Your task to perform on an android device: turn pop-ups on in chrome Image 0: 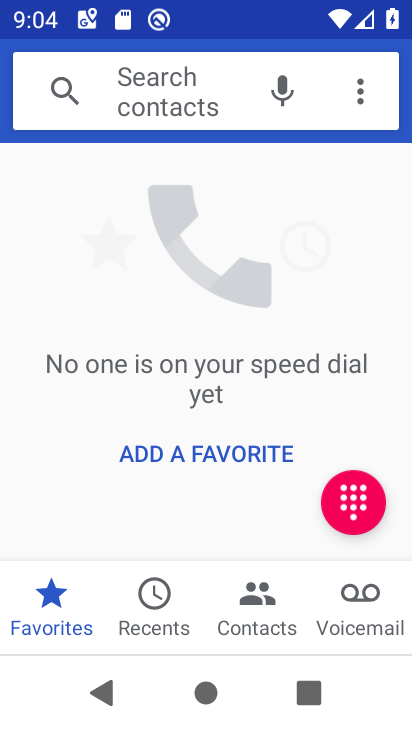
Step 0: press home button
Your task to perform on an android device: turn pop-ups on in chrome Image 1: 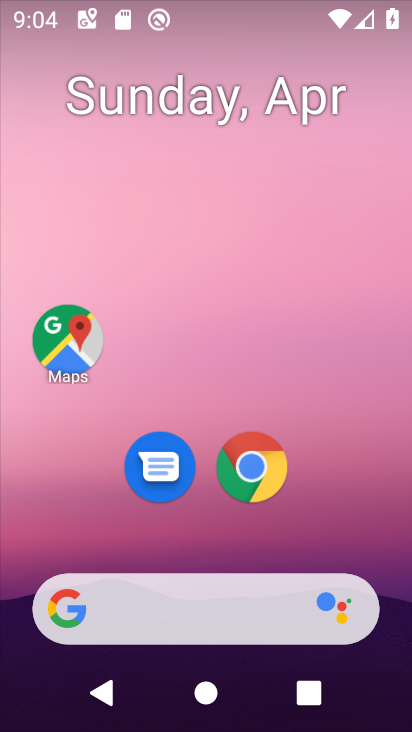
Step 1: click (238, 455)
Your task to perform on an android device: turn pop-ups on in chrome Image 2: 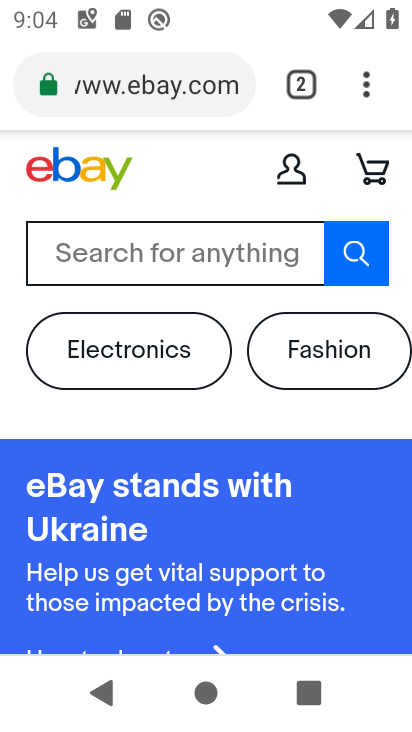
Step 2: click (370, 82)
Your task to perform on an android device: turn pop-ups on in chrome Image 3: 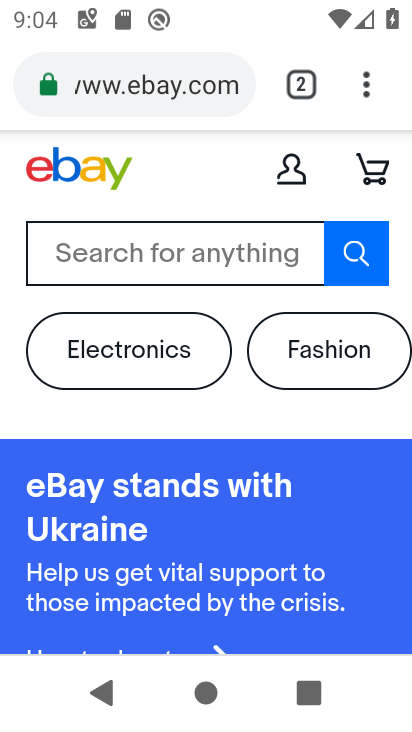
Step 3: click (372, 89)
Your task to perform on an android device: turn pop-ups on in chrome Image 4: 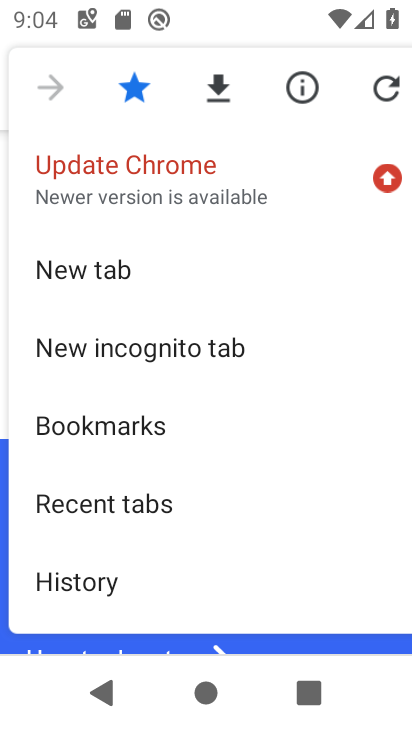
Step 4: drag from (170, 511) to (216, 284)
Your task to perform on an android device: turn pop-ups on in chrome Image 5: 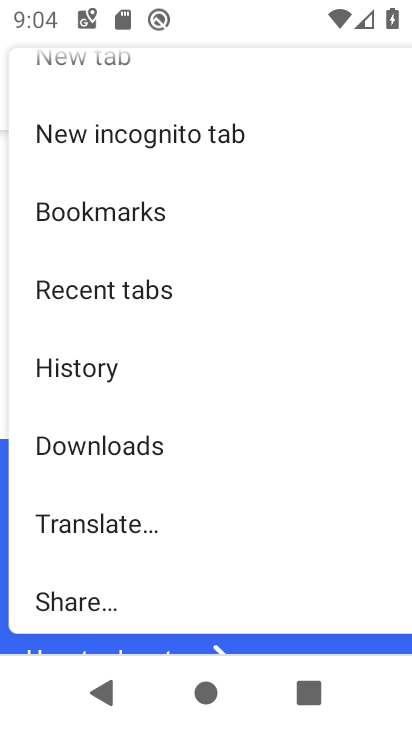
Step 5: drag from (179, 511) to (215, 362)
Your task to perform on an android device: turn pop-ups on in chrome Image 6: 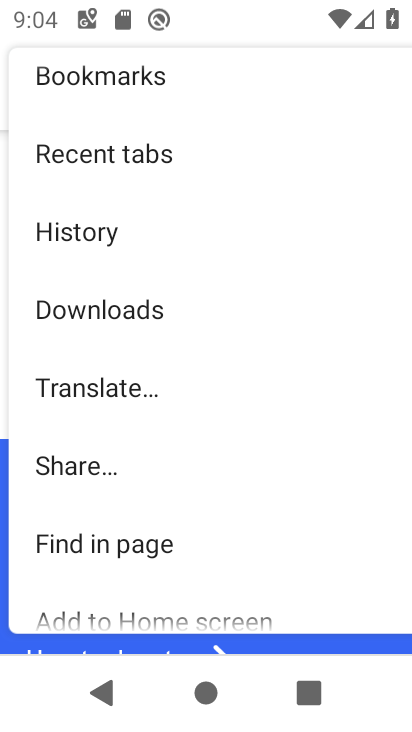
Step 6: drag from (173, 517) to (223, 313)
Your task to perform on an android device: turn pop-ups on in chrome Image 7: 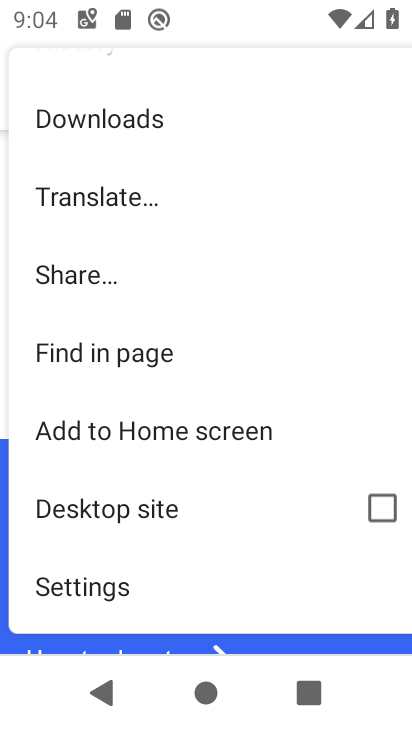
Step 7: click (183, 597)
Your task to perform on an android device: turn pop-ups on in chrome Image 8: 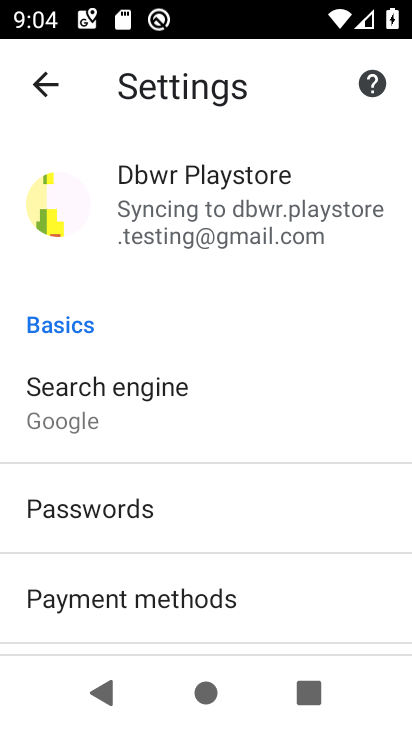
Step 8: drag from (170, 623) to (175, 386)
Your task to perform on an android device: turn pop-ups on in chrome Image 9: 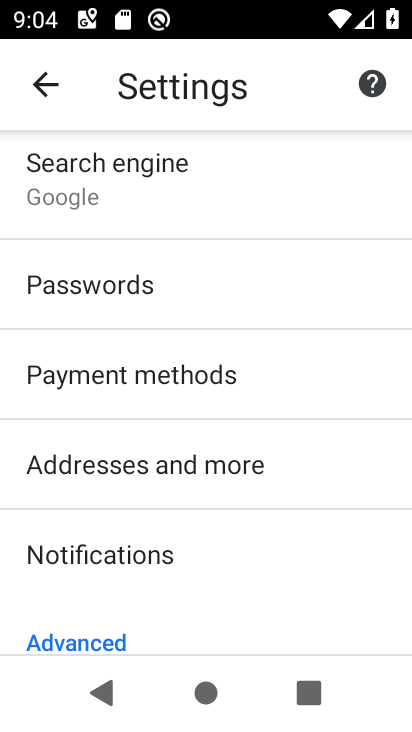
Step 9: drag from (199, 568) to (230, 340)
Your task to perform on an android device: turn pop-ups on in chrome Image 10: 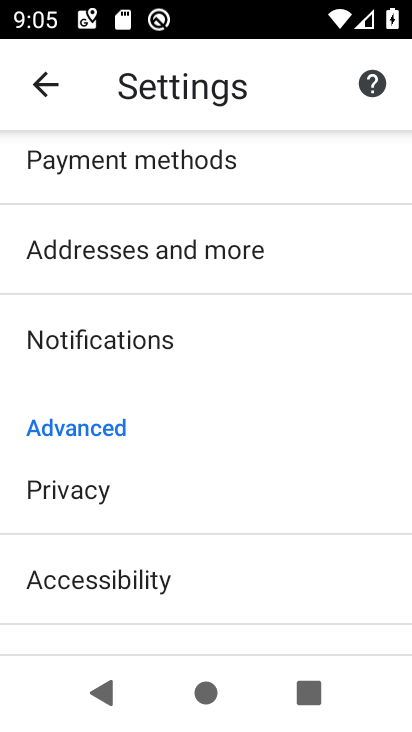
Step 10: drag from (207, 527) to (217, 374)
Your task to perform on an android device: turn pop-ups on in chrome Image 11: 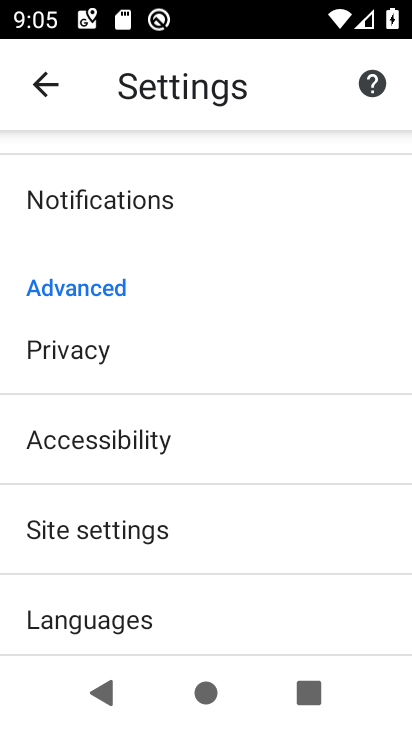
Step 11: drag from (189, 593) to (195, 492)
Your task to perform on an android device: turn pop-ups on in chrome Image 12: 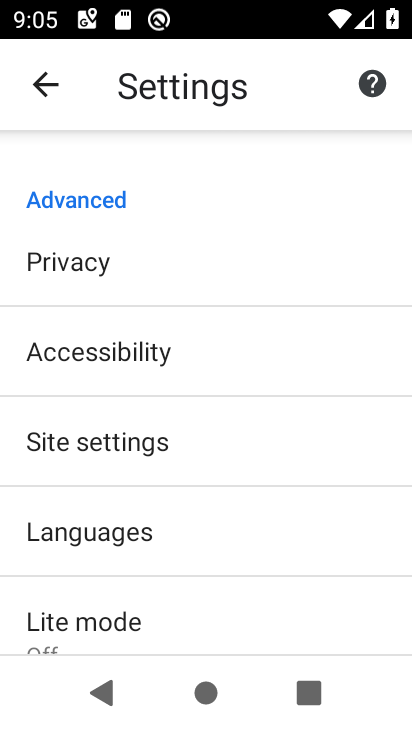
Step 12: click (230, 417)
Your task to perform on an android device: turn pop-ups on in chrome Image 13: 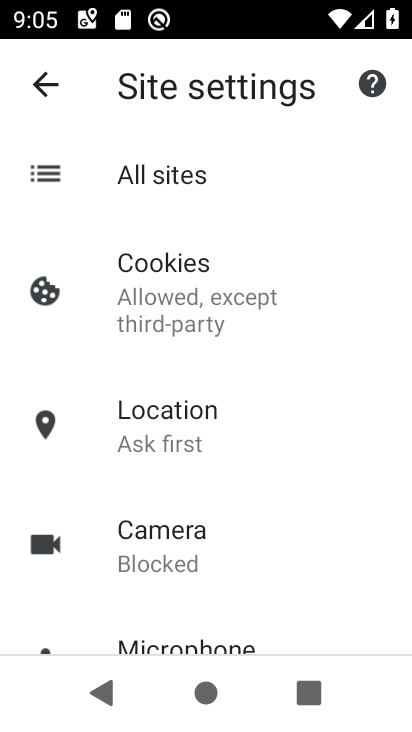
Step 13: drag from (194, 531) to (243, 376)
Your task to perform on an android device: turn pop-ups on in chrome Image 14: 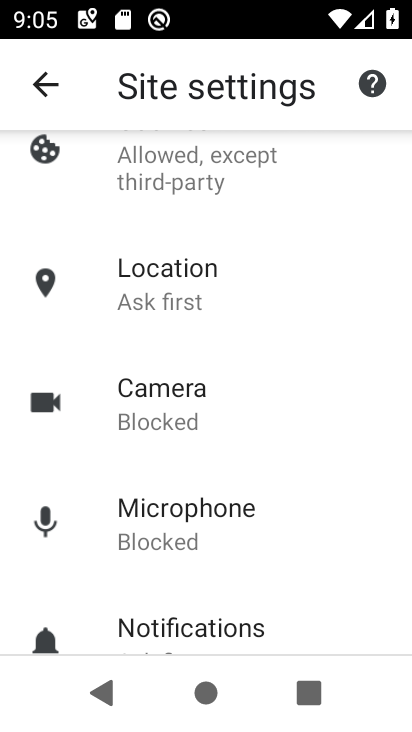
Step 14: drag from (206, 556) to (237, 439)
Your task to perform on an android device: turn pop-ups on in chrome Image 15: 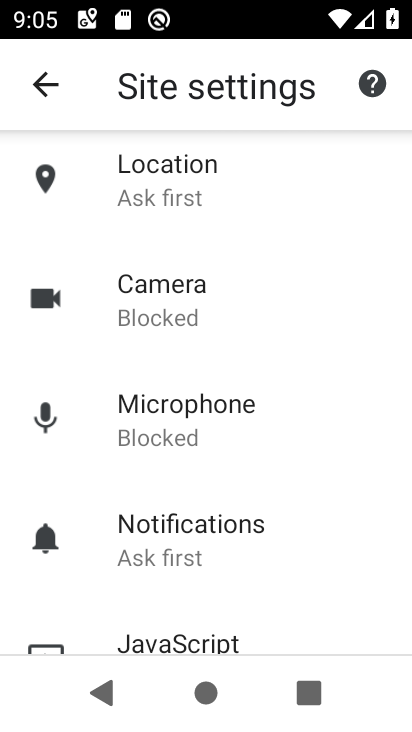
Step 15: drag from (189, 534) to (241, 384)
Your task to perform on an android device: turn pop-ups on in chrome Image 16: 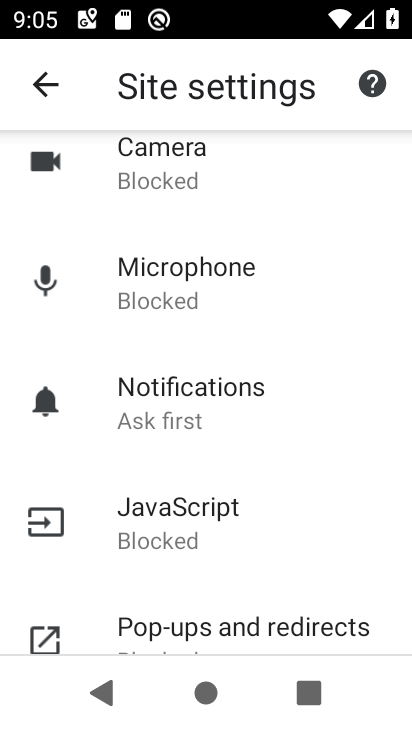
Step 16: drag from (217, 471) to (246, 346)
Your task to perform on an android device: turn pop-ups on in chrome Image 17: 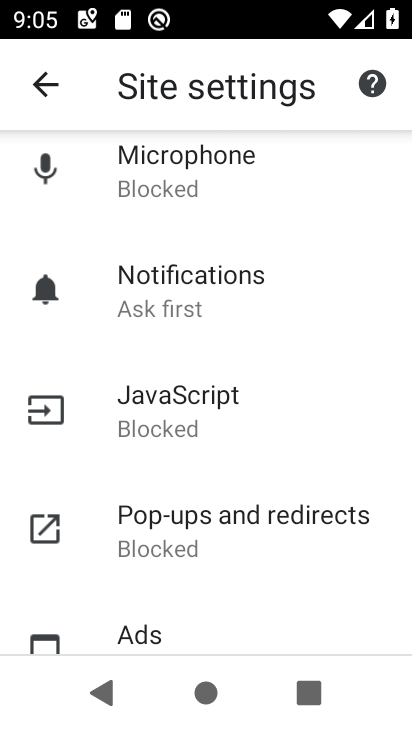
Step 17: click (247, 516)
Your task to perform on an android device: turn pop-ups on in chrome Image 18: 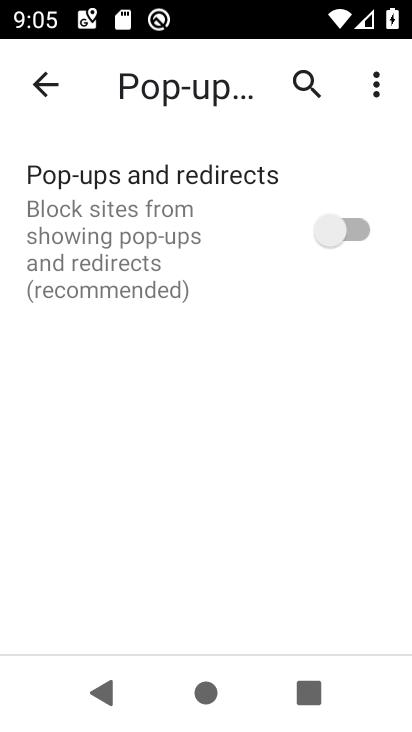
Step 18: click (339, 224)
Your task to perform on an android device: turn pop-ups on in chrome Image 19: 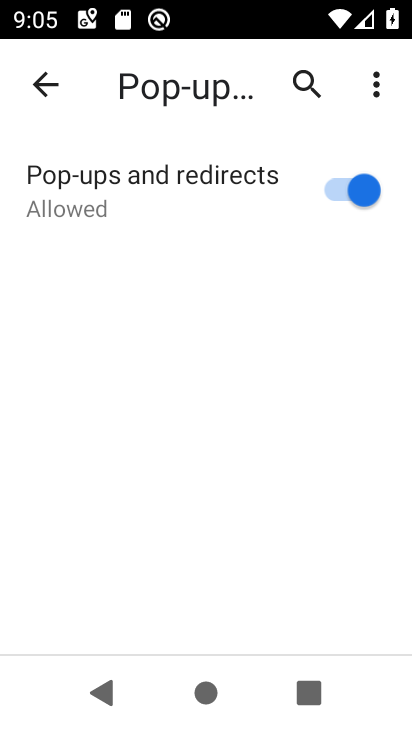
Step 19: task complete